Your task to perform on an android device: Search for vegetarian restaurants on Maps Image 0: 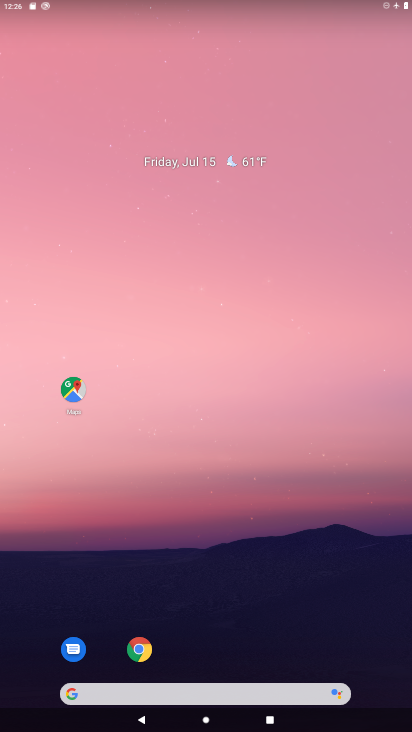
Step 0: click (70, 392)
Your task to perform on an android device: Search for vegetarian restaurants on Maps Image 1: 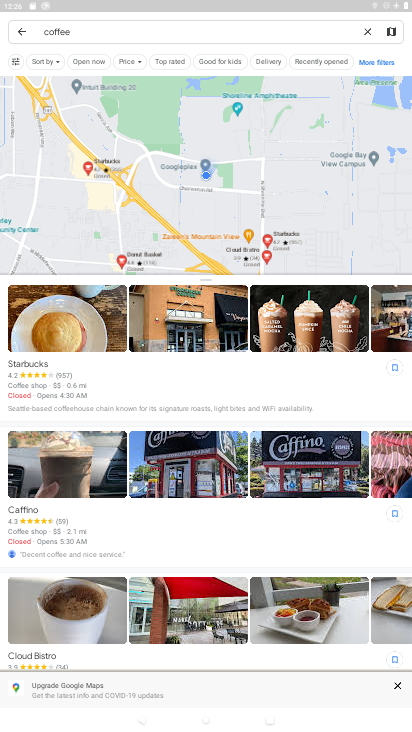
Step 1: click (120, 31)
Your task to perform on an android device: Search for vegetarian restaurants on Maps Image 2: 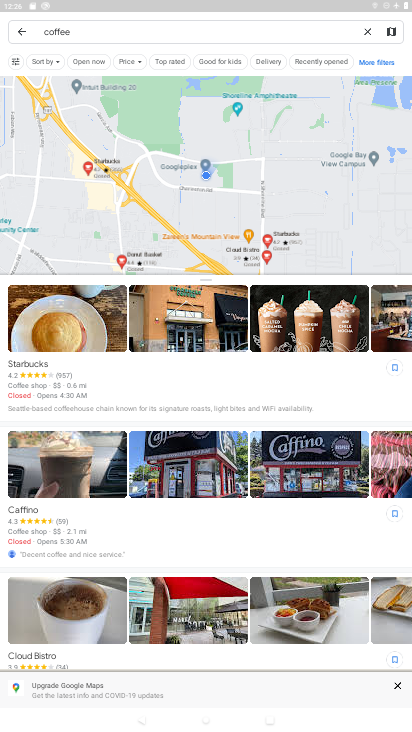
Step 2: click (120, 31)
Your task to perform on an android device: Search for vegetarian restaurants on Maps Image 3: 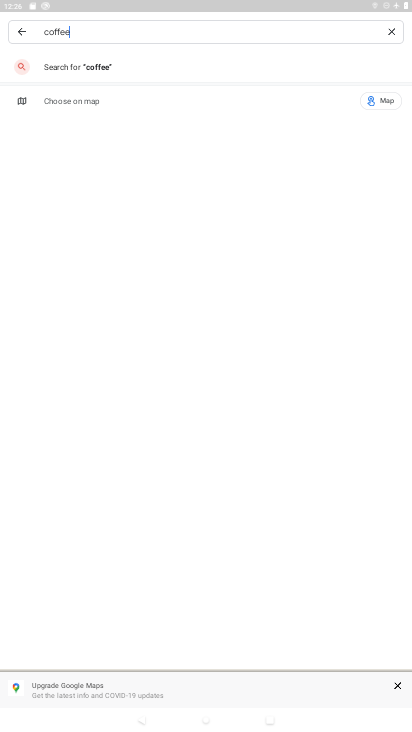
Step 3: click (120, 31)
Your task to perform on an android device: Search for vegetarian restaurants on Maps Image 4: 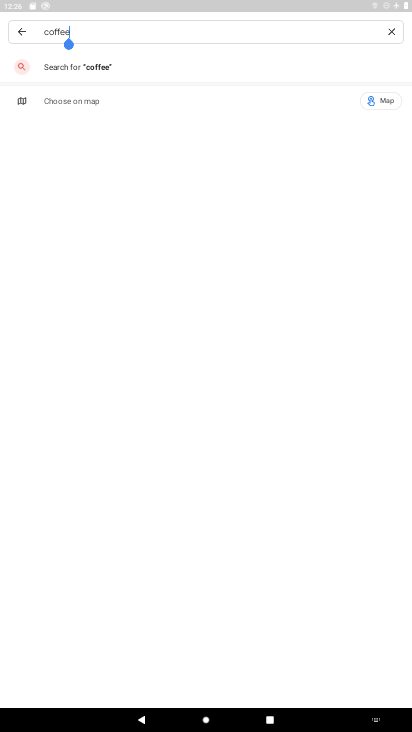
Step 4: click (120, 31)
Your task to perform on an android device: Search for vegetarian restaurants on Maps Image 5: 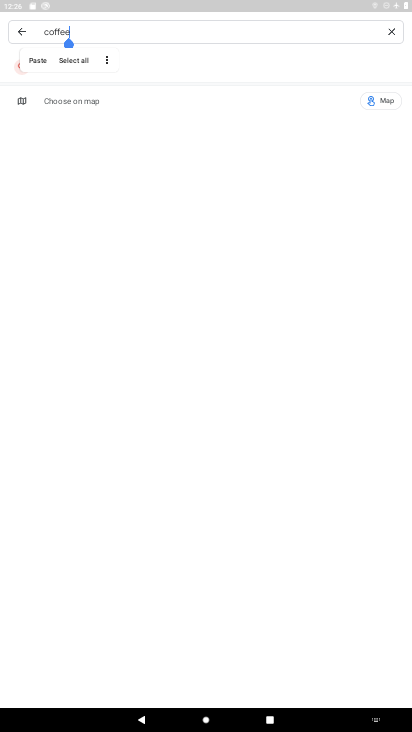
Step 5: click (390, 30)
Your task to perform on an android device: Search for vegetarian restaurants on Maps Image 6: 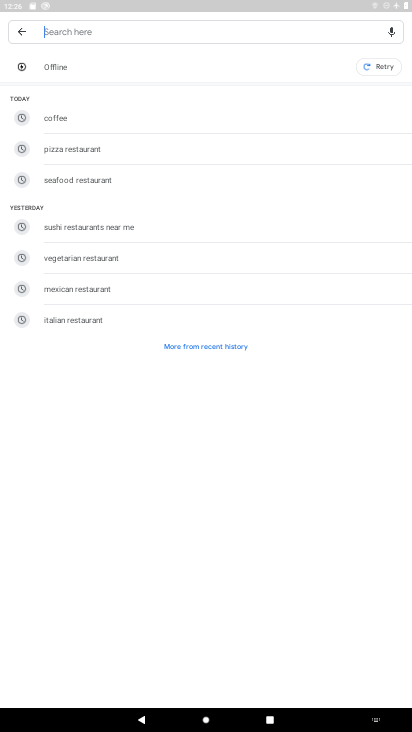
Step 6: type "vegetarian restaurants"
Your task to perform on an android device: Search for vegetarian restaurants on Maps Image 7: 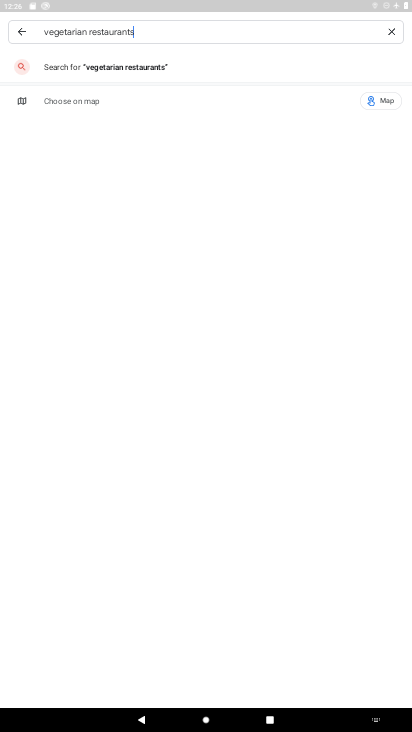
Step 7: click (149, 72)
Your task to perform on an android device: Search for vegetarian restaurants on Maps Image 8: 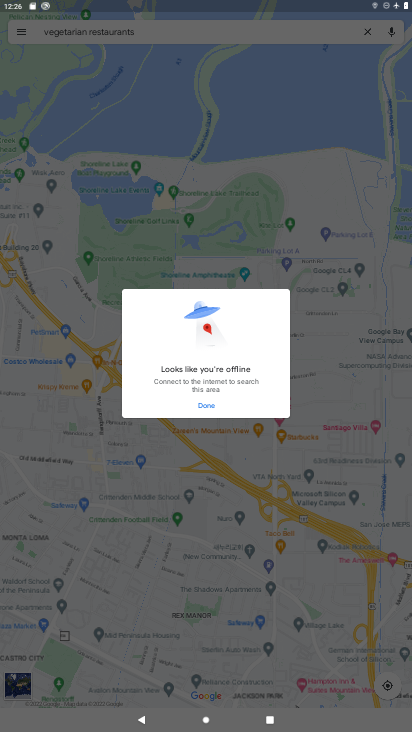
Step 8: task complete